Your task to perform on an android device: turn on data saver in the chrome app Image 0: 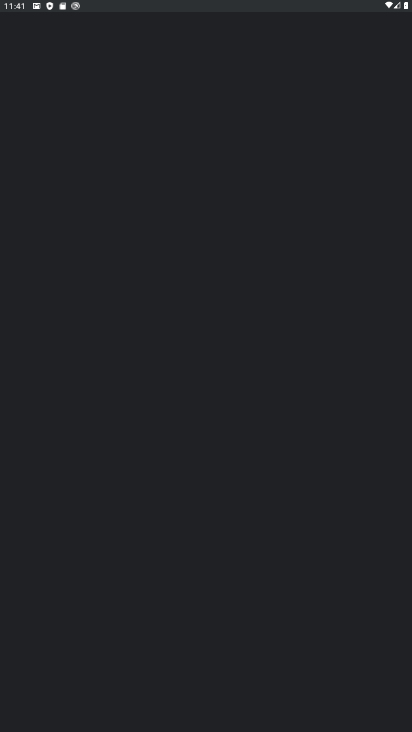
Step 0: press home button
Your task to perform on an android device: turn on data saver in the chrome app Image 1: 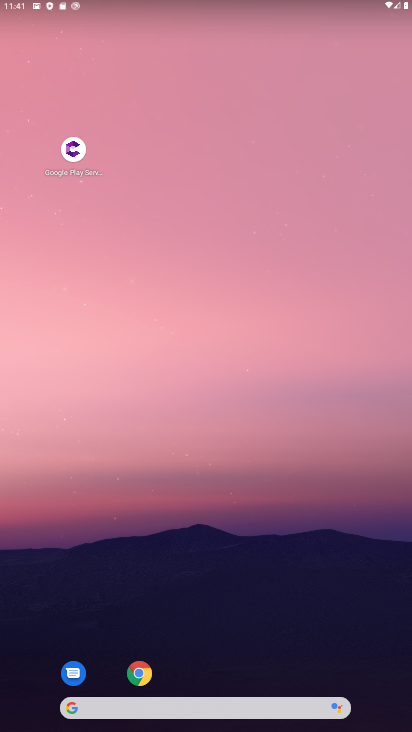
Step 1: drag from (356, 625) to (0, 193)
Your task to perform on an android device: turn on data saver in the chrome app Image 2: 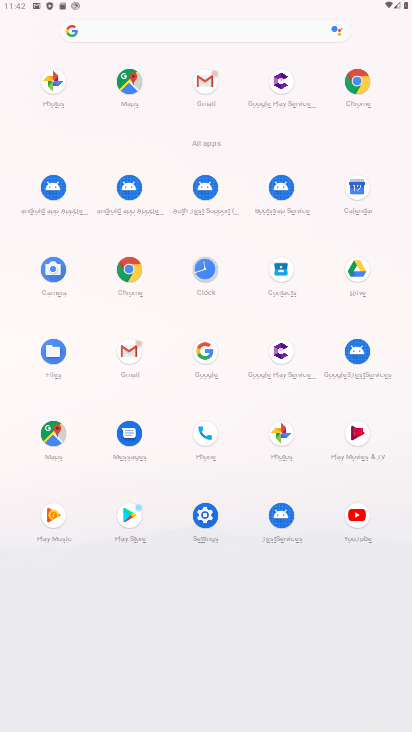
Step 2: click (118, 284)
Your task to perform on an android device: turn on data saver in the chrome app Image 3: 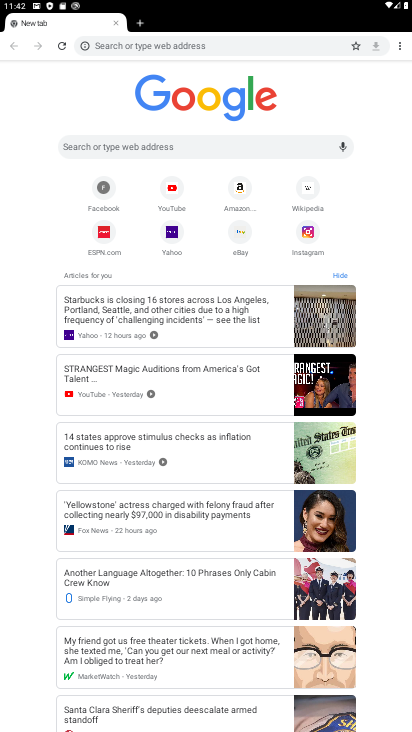
Step 3: drag from (404, 47) to (319, 236)
Your task to perform on an android device: turn on data saver in the chrome app Image 4: 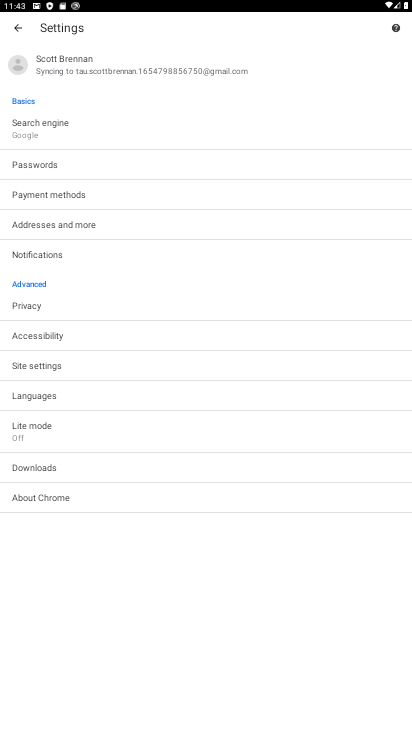
Step 4: click (91, 425)
Your task to perform on an android device: turn on data saver in the chrome app Image 5: 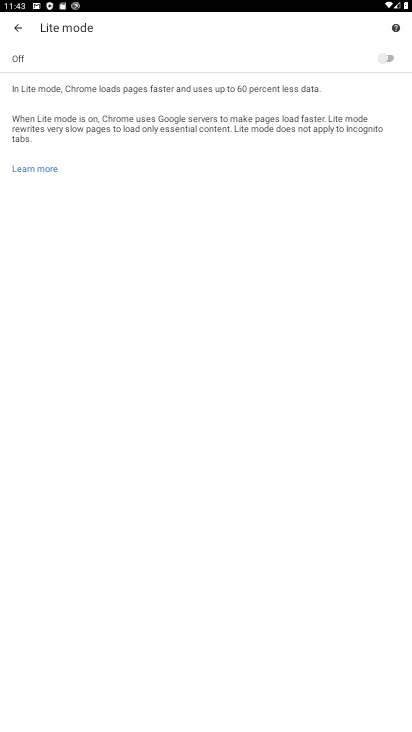
Step 5: click (276, 58)
Your task to perform on an android device: turn on data saver in the chrome app Image 6: 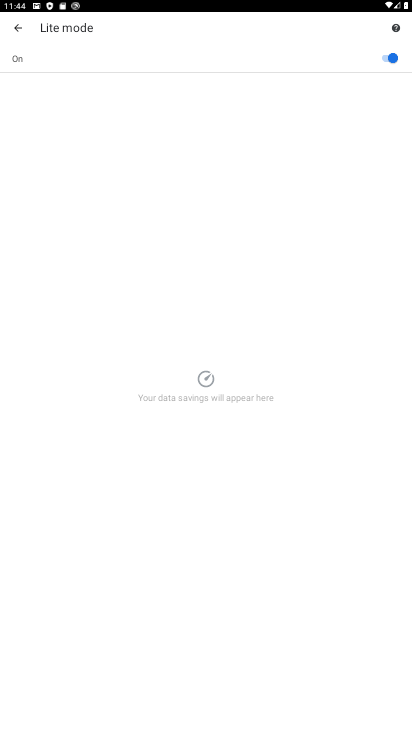
Step 6: task complete